Your task to perform on an android device: find which apps use the phone's location Image 0: 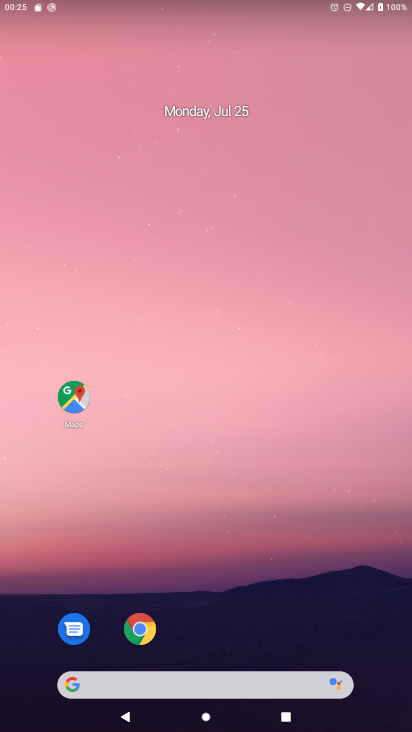
Step 0: drag from (240, 638) to (229, 66)
Your task to perform on an android device: find which apps use the phone's location Image 1: 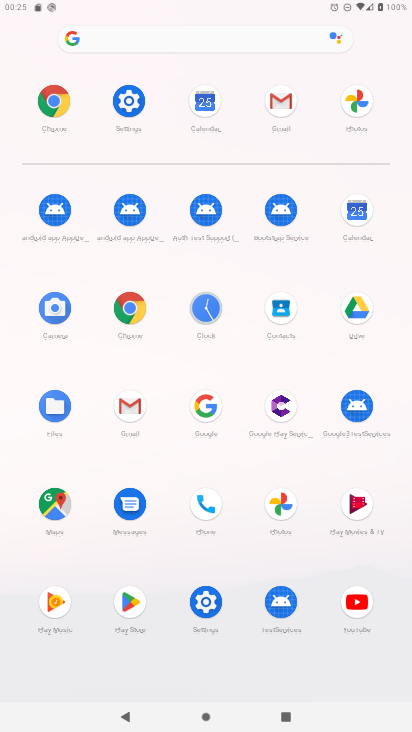
Step 1: click (206, 595)
Your task to perform on an android device: find which apps use the phone's location Image 2: 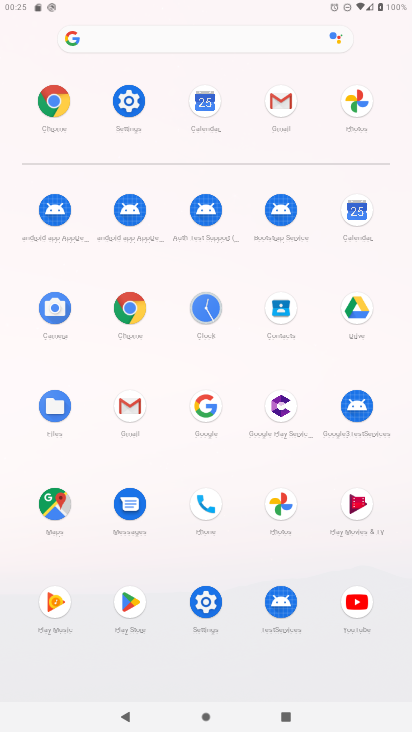
Step 2: click (206, 595)
Your task to perform on an android device: find which apps use the phone's location Image 3: 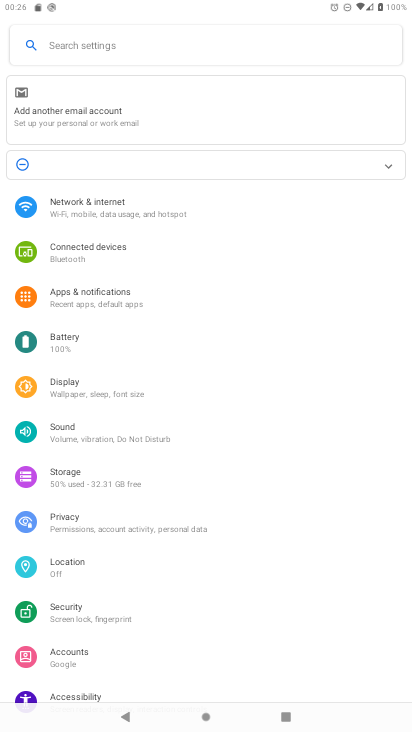
Step 3: click (103, 566)
Your task to perform on an android device: find which apps use the phone's location Image 4: 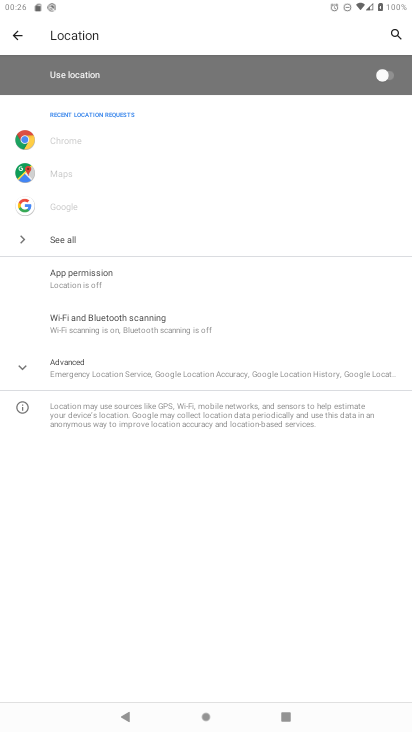
Step 4: click (75, 261)
Your task to perform on an android device: find which apps use the phone's location Image 5: 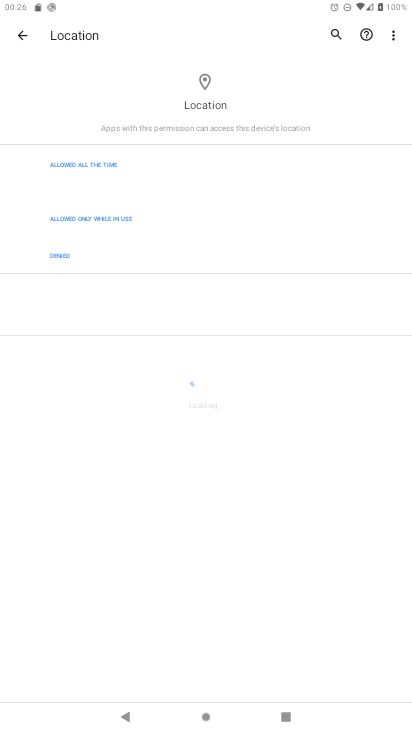
Step 5: task complete